Your task to perform on an android device: Go to eBay Image 0: 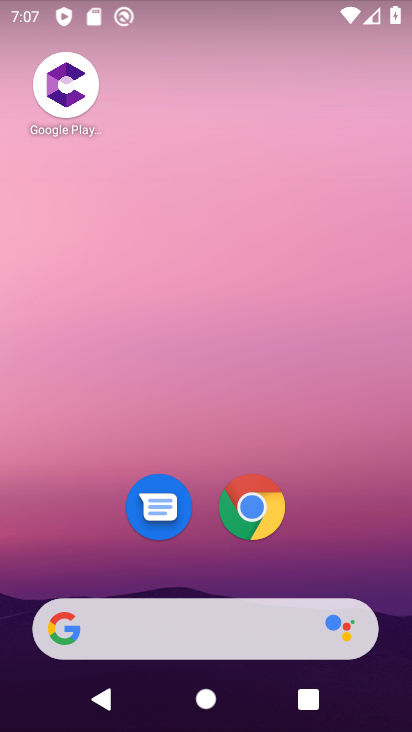
Step 0: click (254, 500)
Your task to perform on an android device: Go to eBay Image 1: 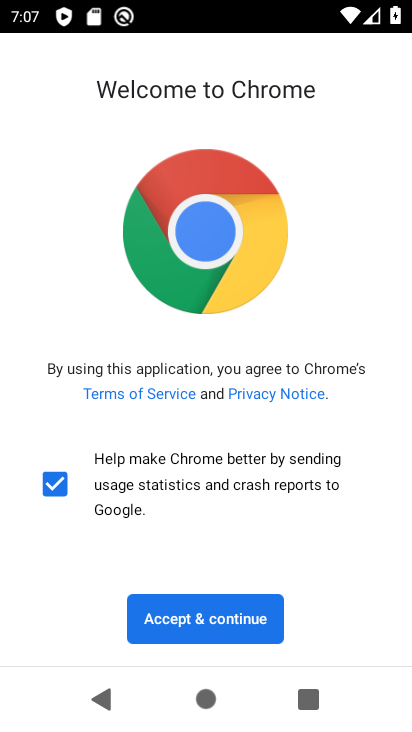
Step 1: click (213, 610)
Your task to perform on an android device: Go to eBay Image 2: 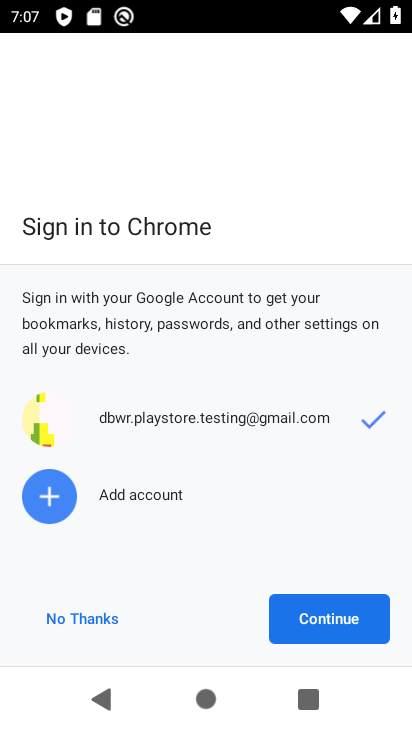
Step 2: click (308, 615)
Your task to perform on an android device: Go to eBay Image 3: 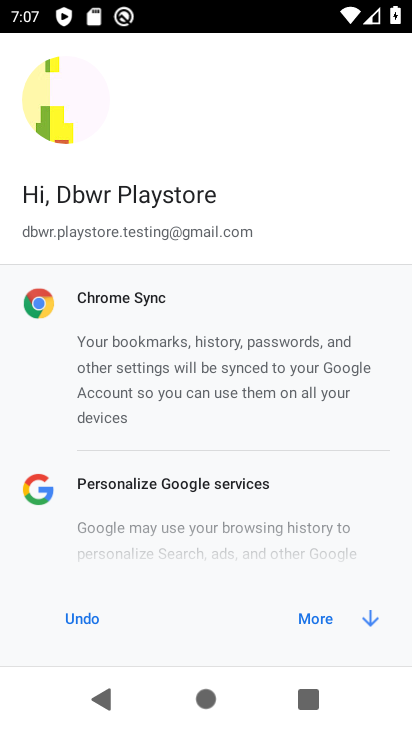
Step 3: click (307, 615)
Your task to perform on an android device: Go to eBay Image 4: 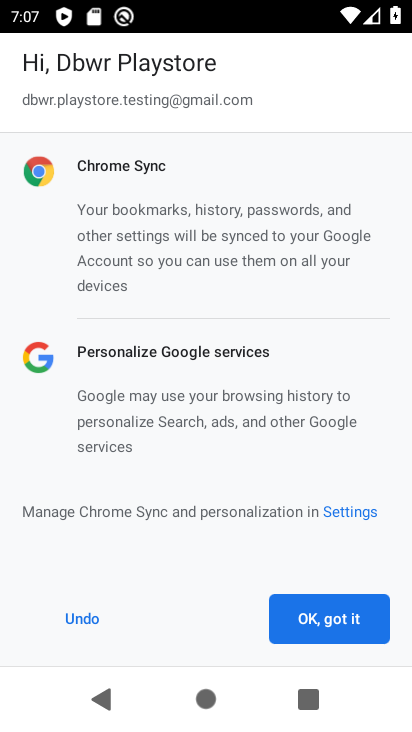
Step 4: click (328, 625)
Your task to perform on an android device: Go to eBay Image 5: 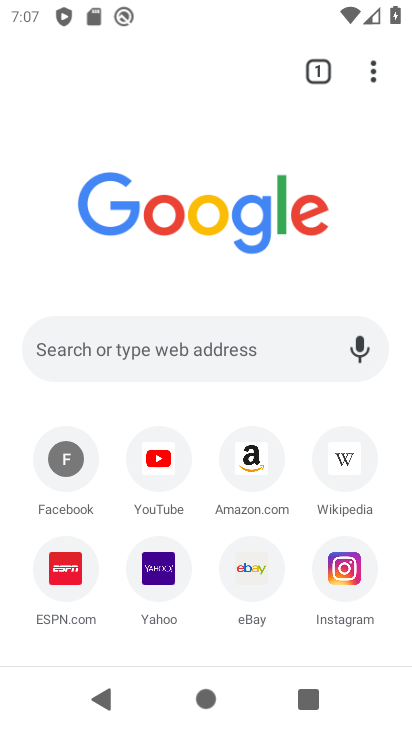
Step 5: click (256, 573)
Your task to perform on an android device: Go to eBay Image 6: 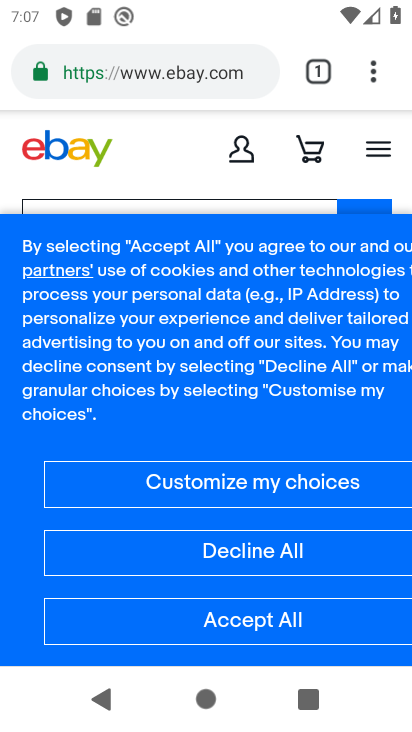
Step 6: task complete